Your task to perform on an android device: Open Maps and search for coffee Image 0: 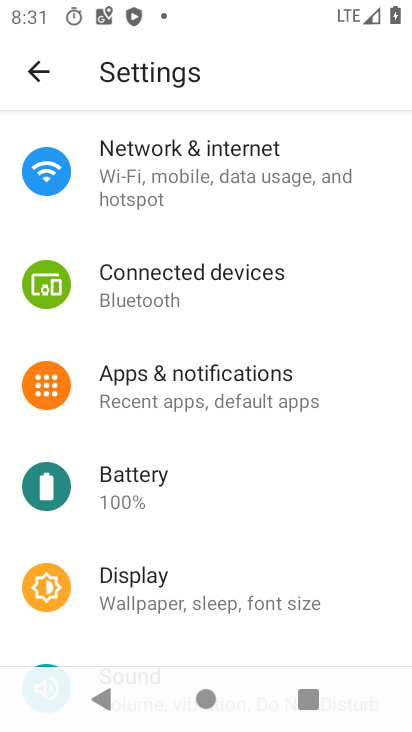
Step 0: press home button
Your task to perform on an android device: Open Maps and search for coffee Image 1: 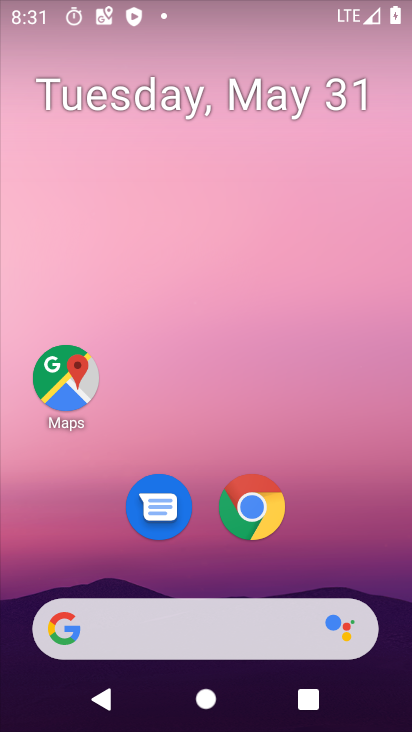
Step 1: click (57, 360)
Your task to perform on an android device: Open Maps and search for coffee Image 2: 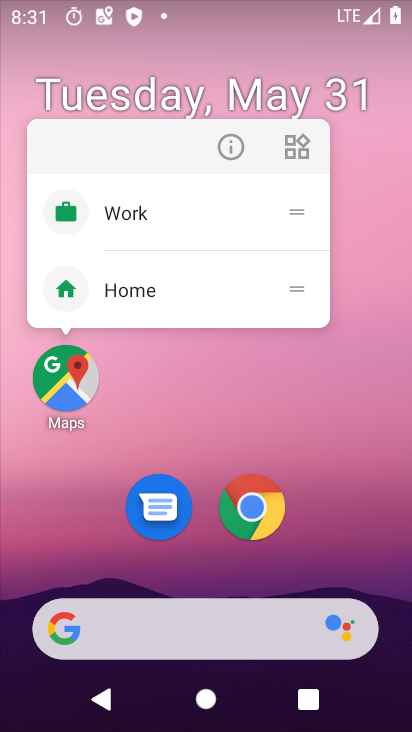
Step 2: click (47, 379)
Your task to perform on an android device: Open Maps and search for coffee Image 3: 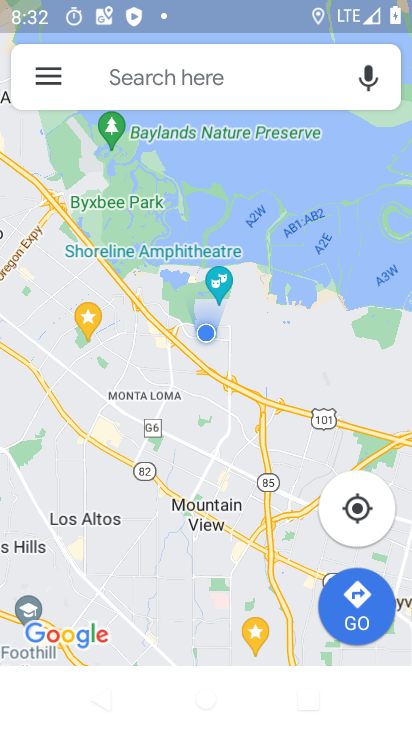
Step 3: click (191, 98)
Your task to perform on an android device: Open Maps and search for coffee Image 4: 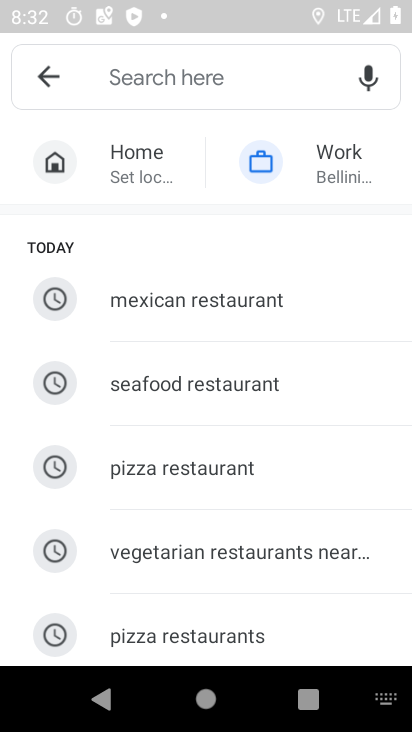
Step 4: drag from (19, 605) to (209, 240)
Your task to perform on an android device: Open Maps and search for coffee Image 5: 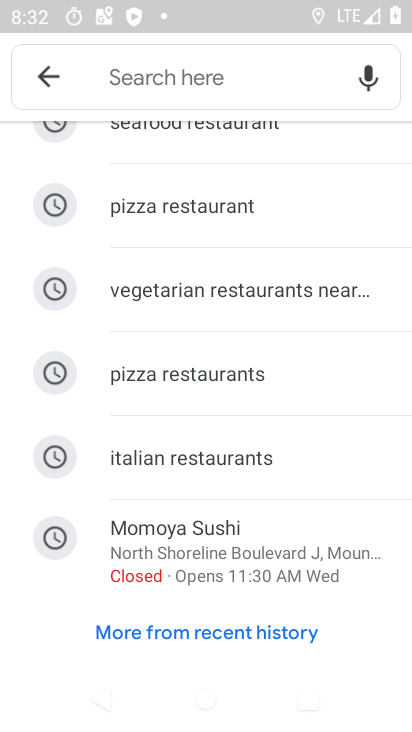
Step 5: drag from (141, 183) to (124, 579)
Your task to perform on an android device: Open Maps and search for coffee Image 6: 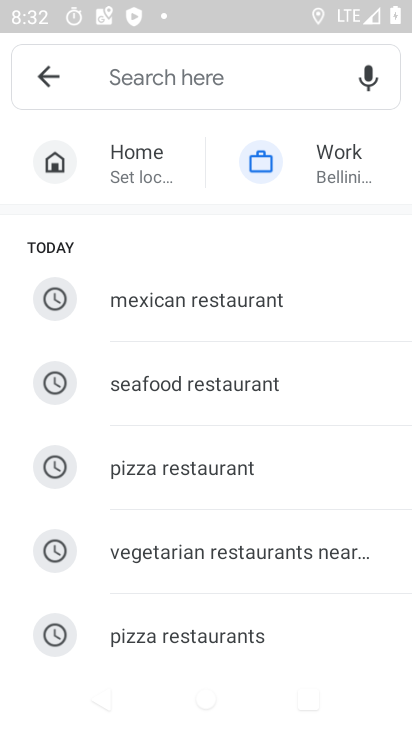
Step 6: click (112, 61)
Your task to perform on an android device: Open Maps and search for coffee Image 7: 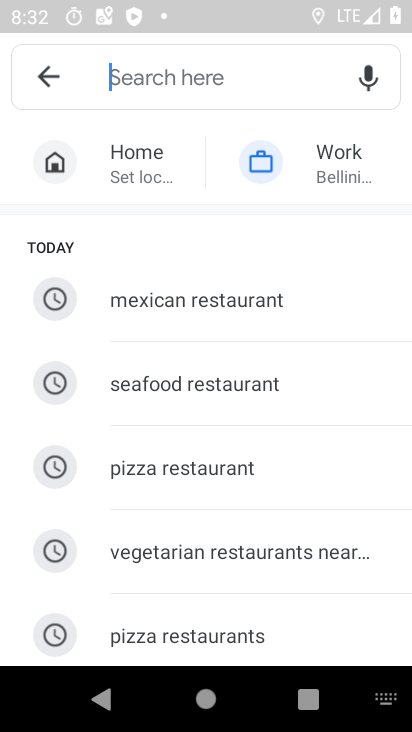
Step 7: type "coffee"
Your task to perform on an android device: Open Maps and search for coffee Image 8: 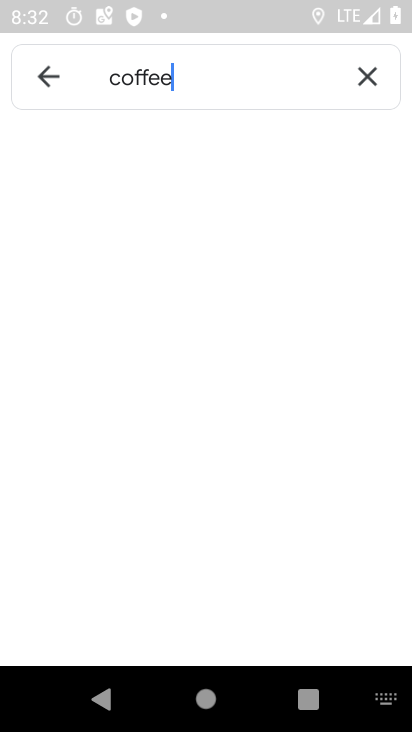
Step 8: type ""
Your task to perform on an android device: Open Maps and search for coffee Image 9: 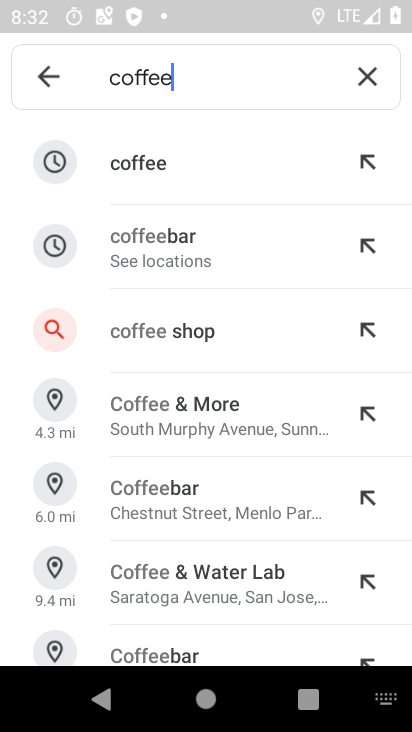
Step 9: click (56, 169)
Your task to perform on an android device: Open Maps and search for coffee Image 10: 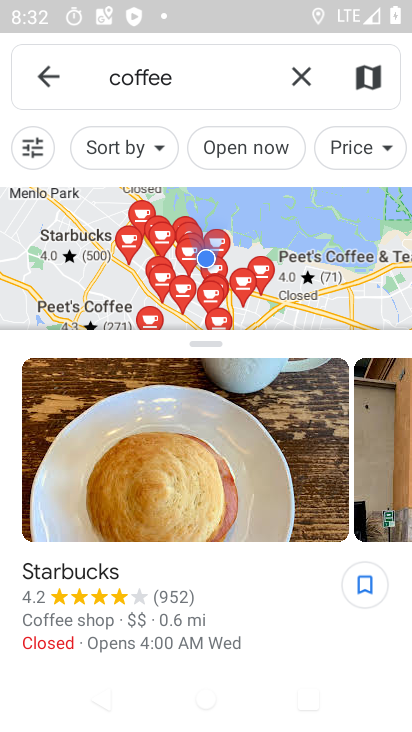
Step 10: task complete